Your task to perform on an android device: turn off airplane mode Image 0: 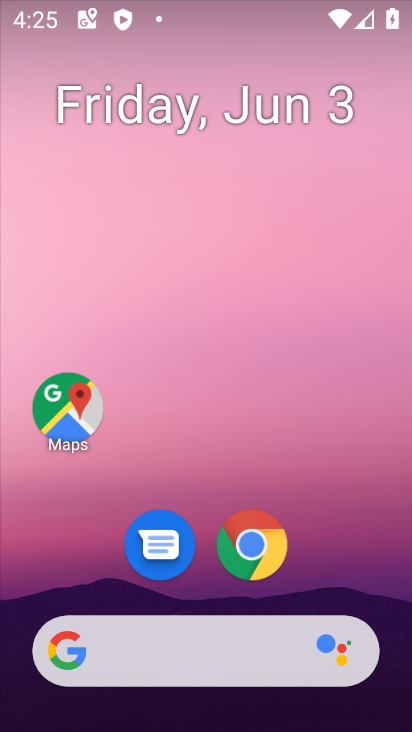
Step 0: drag from (87, 625) to (222, 185)
Your task to perform on an android device: turn off airplane mode Image 1: 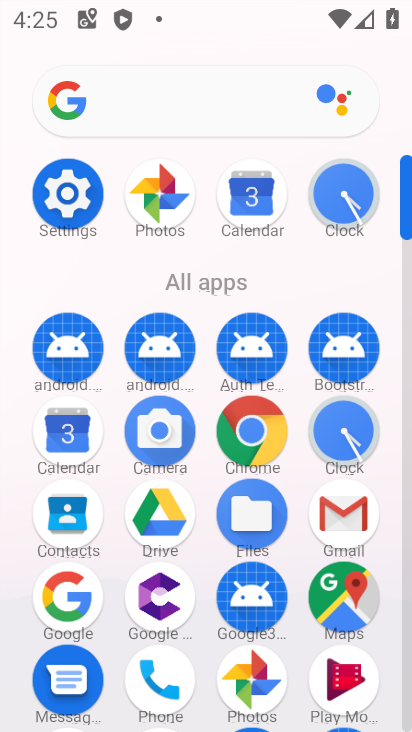
Step 1: drag from (209, 600) to (295, 361)
Your task to perform on an android device: turn off airplane mode Image 2: 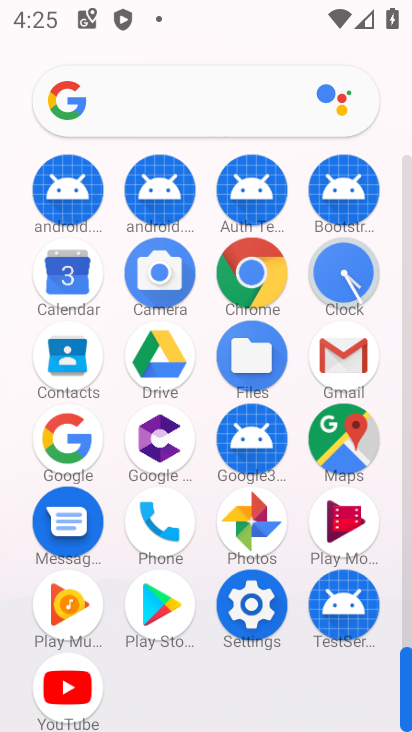
Step 2: click (282, 605)
Your task to perform on an android device: turn off airplane mode Image 3: 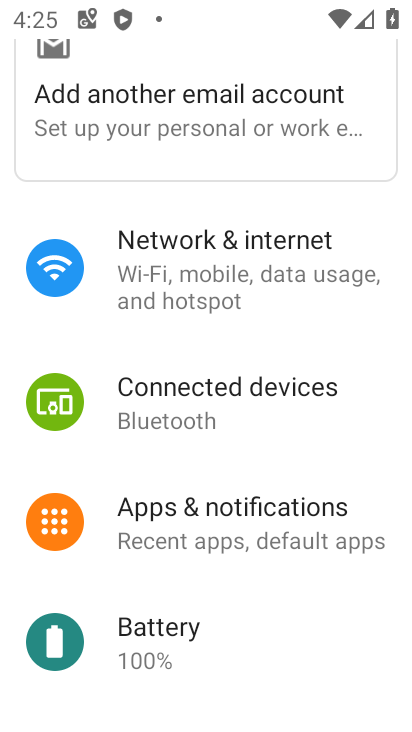
Step 3: click (260, 216)
Your task to perform on an android device: turn off airplane mode Image 4: 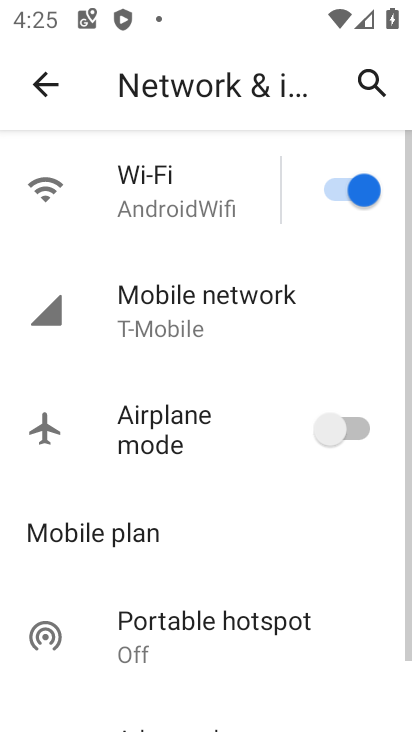
Step 4: task complete